Your task to perform on an android device: Open CNN.com Image 0: 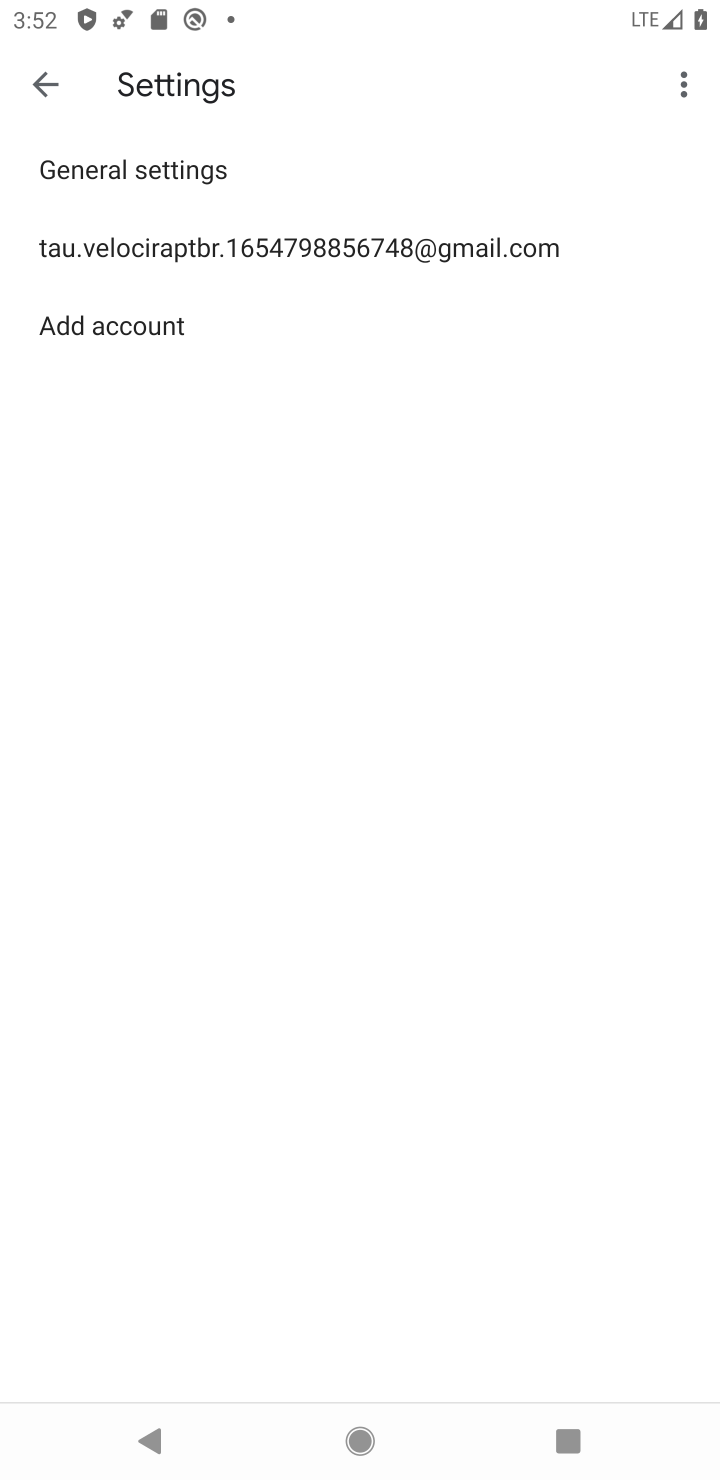
Step 0: press back button
Your task to perform on an android device: Open CNN.com Image 1: 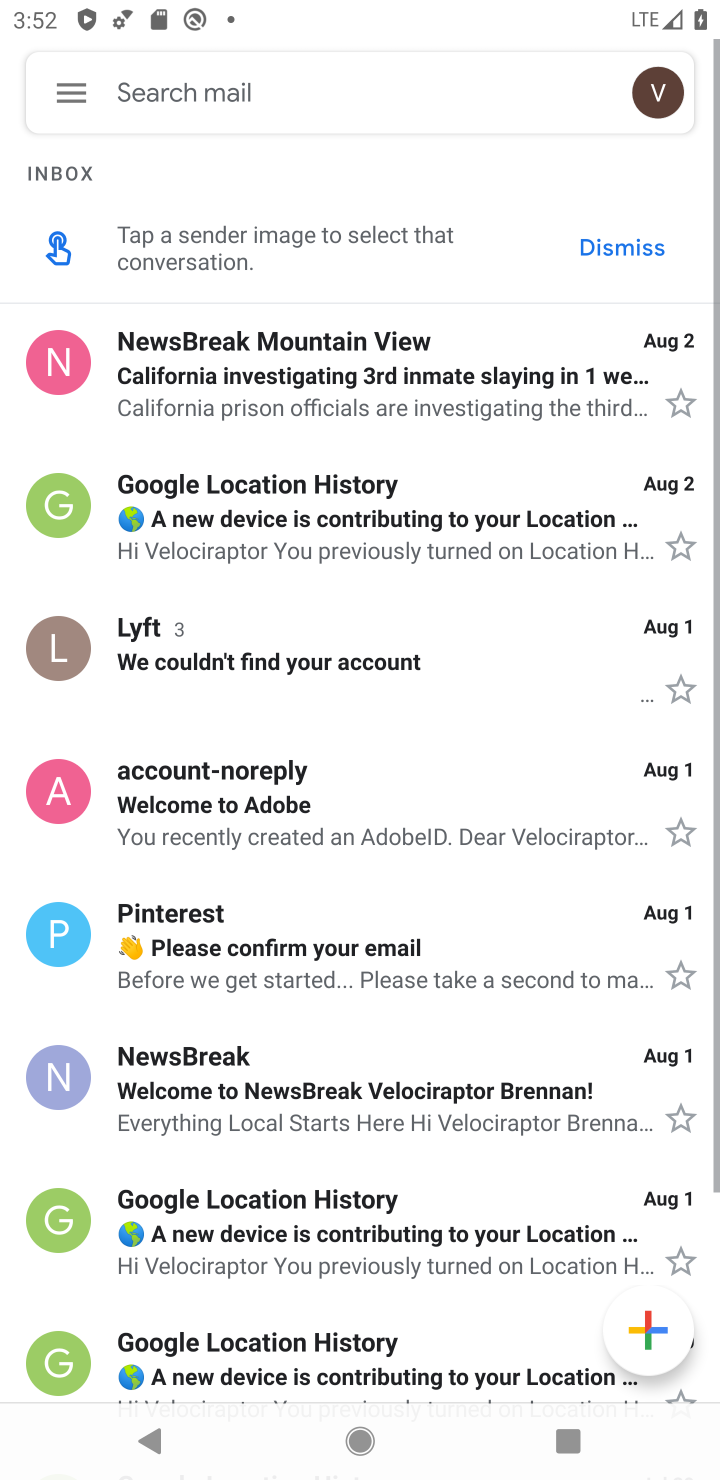
Step 1: press home button
Your task to perform on an android device: Open CNN.com Image 2: 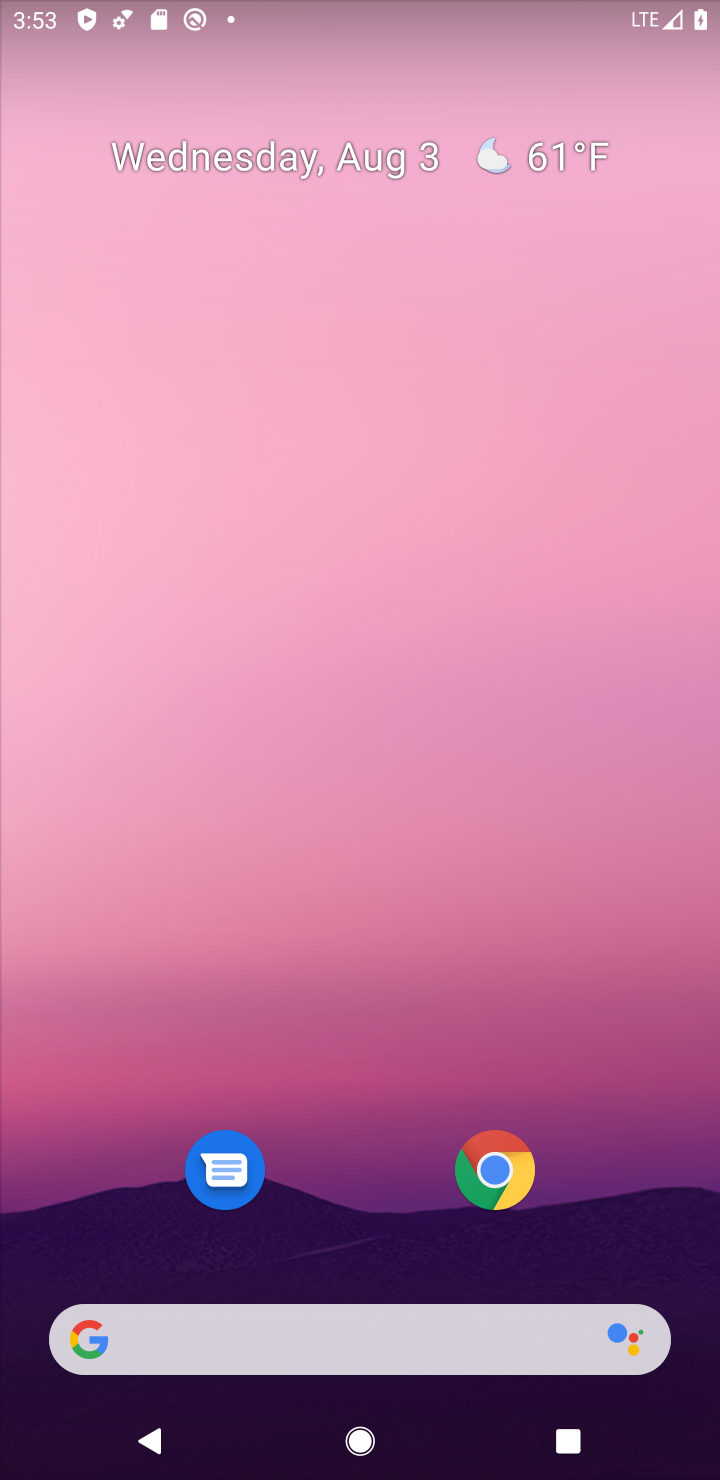
Step 2: click (507, 1177)
Your task to perform on an android device: Open CNN.com Image 3: 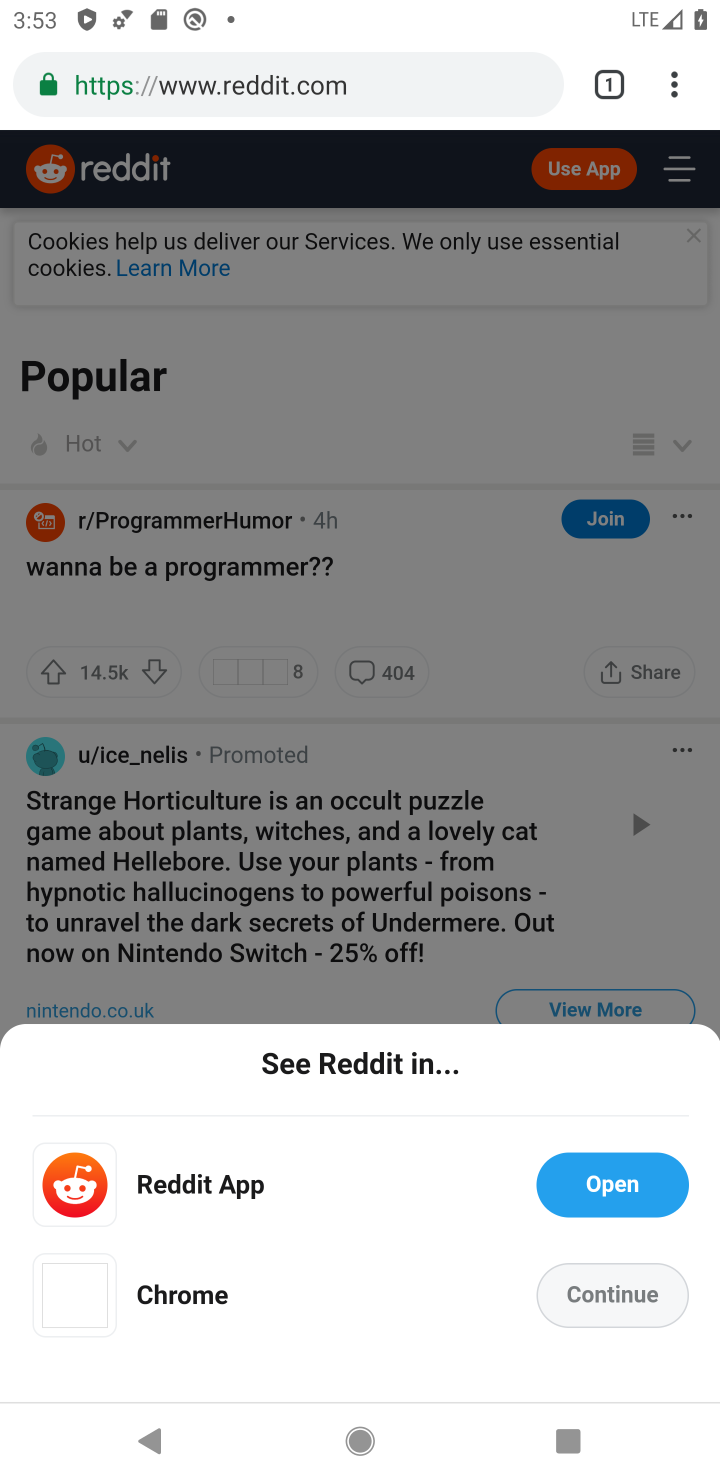
Step 3: click (319, 97)
Your task to perform on an android device: Open CNN.com Image 4: 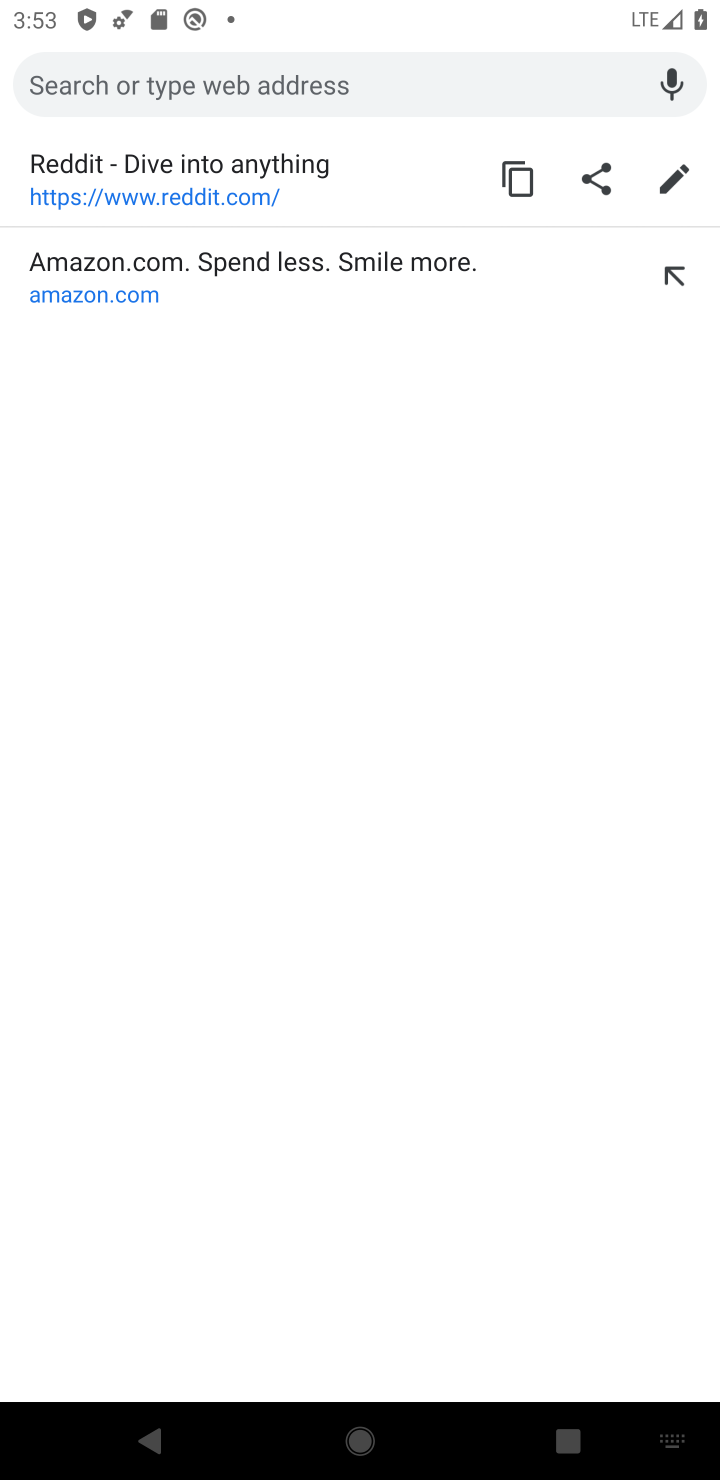
Step 4: type "www.cnn.com"
Your task to perform on an android device: Open CNN.com Image 5: 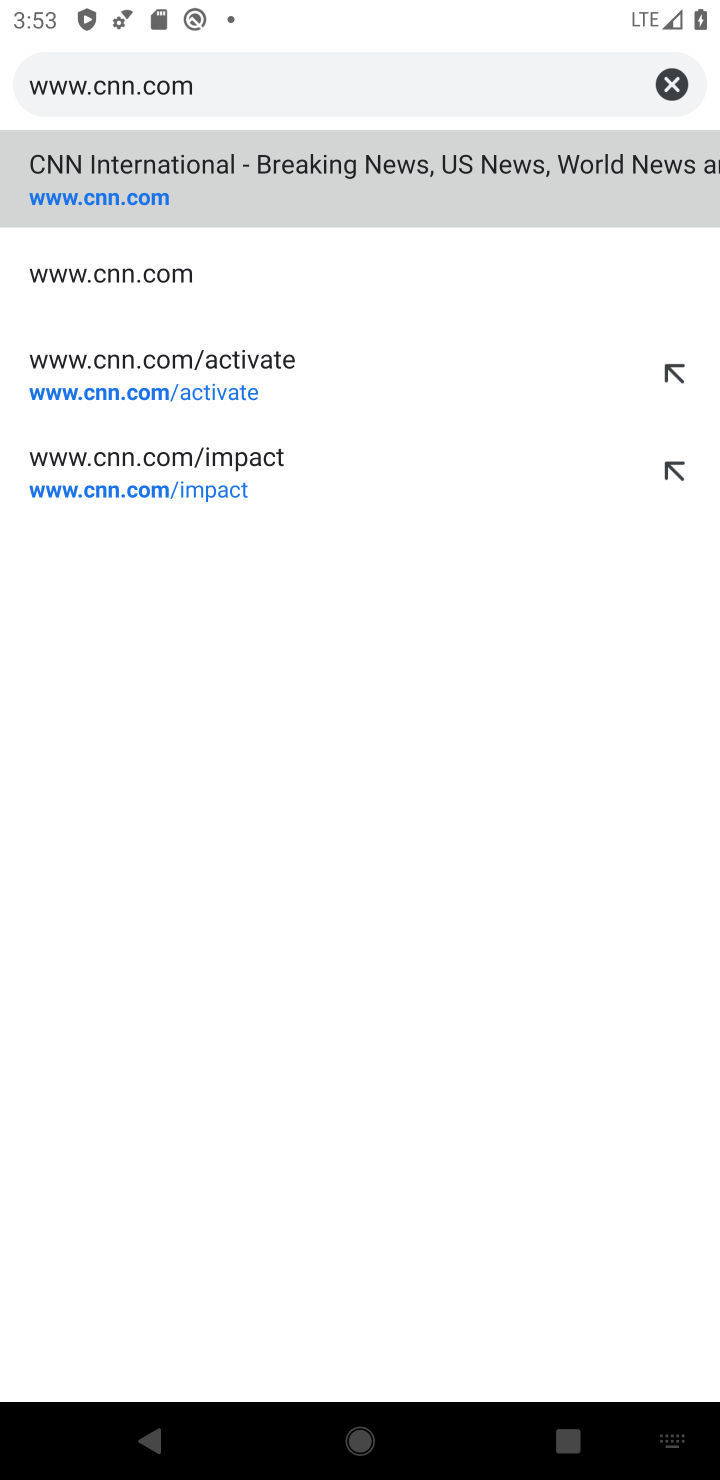
Step 5: click (93, 198)
Your task to perform on an android device: Open CNN.com Image 6: 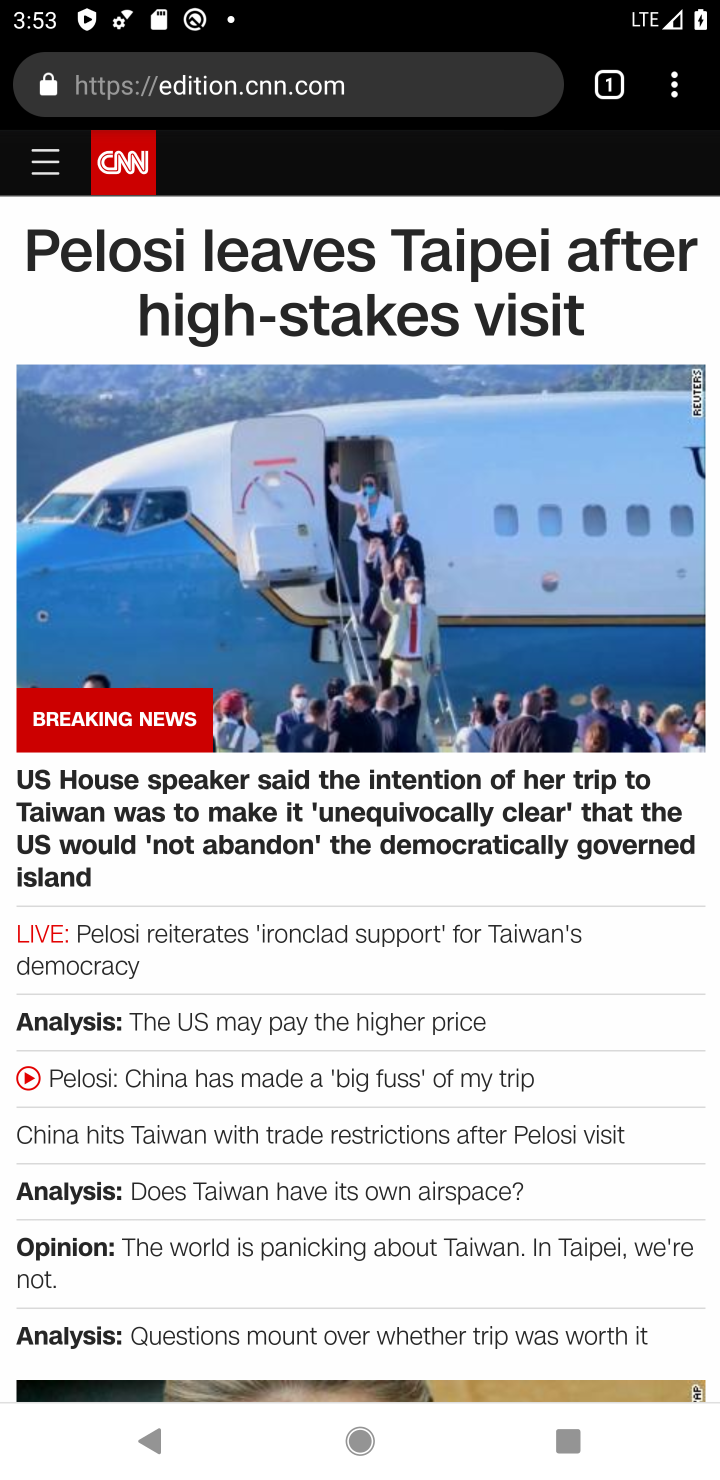
Step 6: task complete